Your task to perform on an android device: Open Google Maps and go to "Timeline" Image 0: 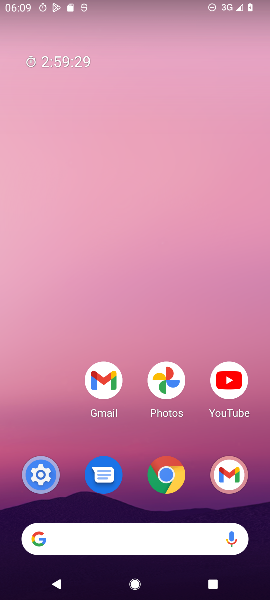
Step 0: press home button
Your task to perform on an android device: Open Google Maps and go to "Timeline" Image 1: 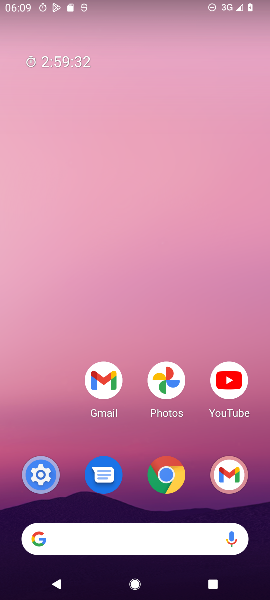
Step 1: drag from (66, 423) to (83, 381)
Your task to perform on an android device: Open Google Maps and go to "Timeline" Image 2: 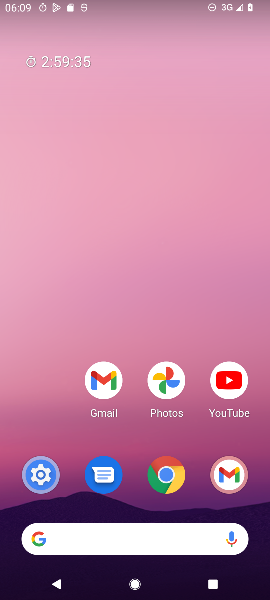
Step 2: drag from (59, 423) to (51, 170)
Your task to perform on an android device: Open Google Maps and go to "Timeline" Image 3: 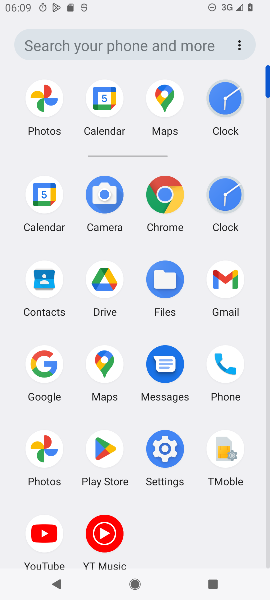
Step 3: click (99, 363)
Your task to perform on an android device: Open Google Maps and go to "Timeline" Image 4: 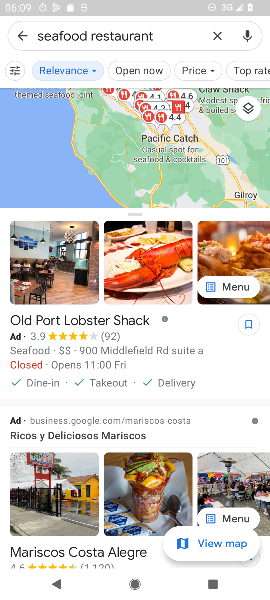
Step 4: press back button
Your task to perform on an android device: Open Google Maps and go to "Timeline" Image 5: 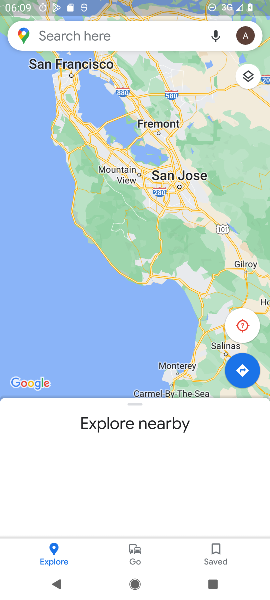
Step 5: click (245, 35)
Your task to perform on an android device: Open Google Maps and go to "Timeline" Image 6: 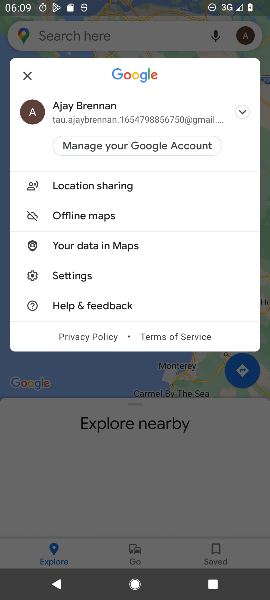
Step 6: click (80, 277)
Your task to perform on an android device: Open Google Maps and go to "Timeline" Image 7: 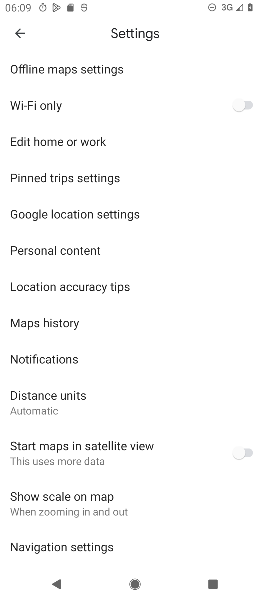
Step 7: task complete